Your task to perform on an android device: check google app version Image 0: 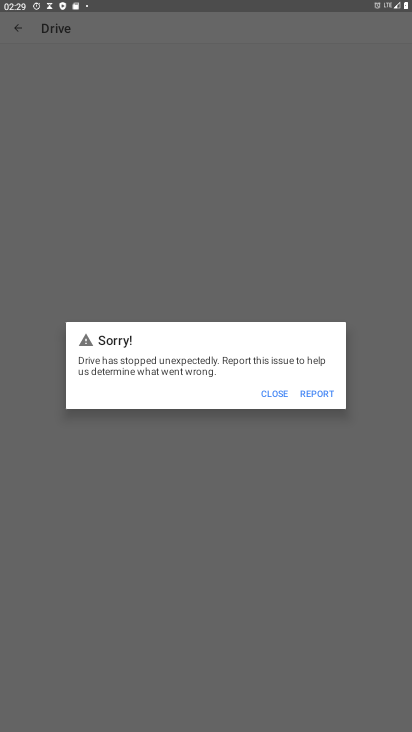
Step 0: press home button
Your task to perform on an android device: check google app version Image 1: 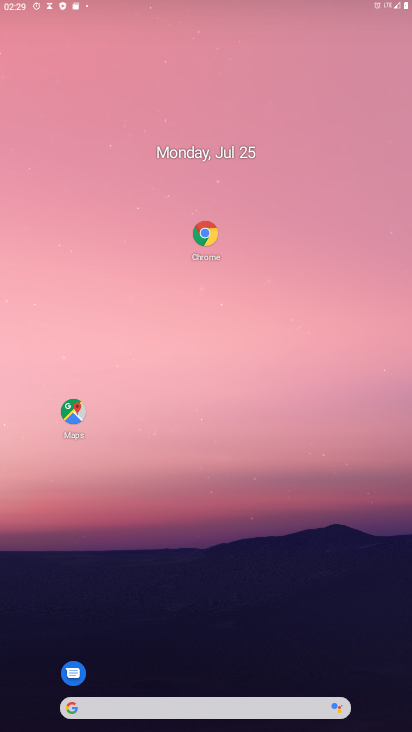
Step 1: drag from (281, 326) to (336, 1)
Your task to perform on an android device: check google app version Image 2: 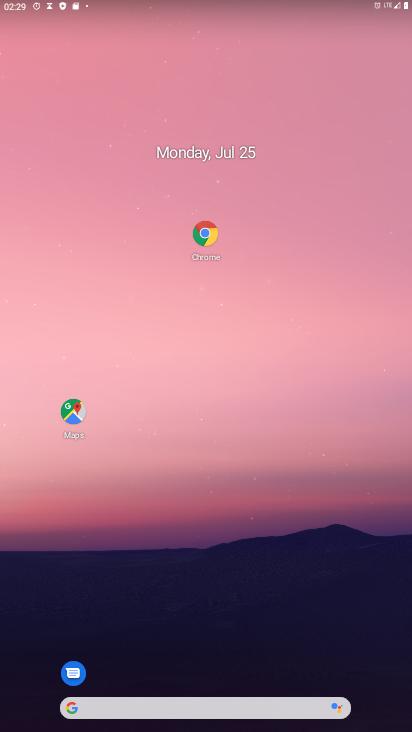
Step 2: drag from (165, 709) to (240, 16)
Your task to perform on an android device: check google app version Image 3: 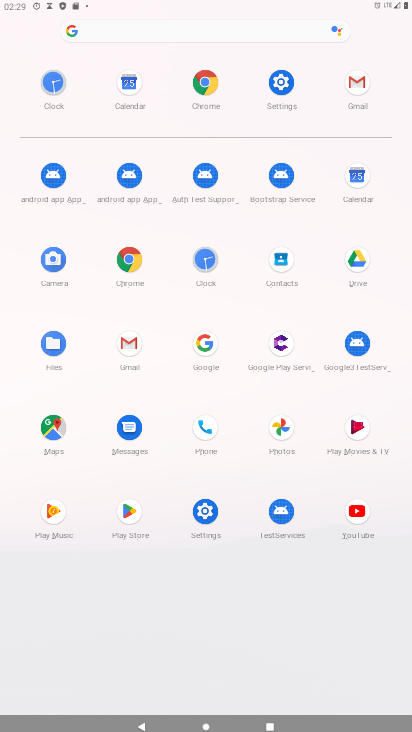
Step 3: click (277, 70)
Your task to perform on an android device: check google app version Image 4: 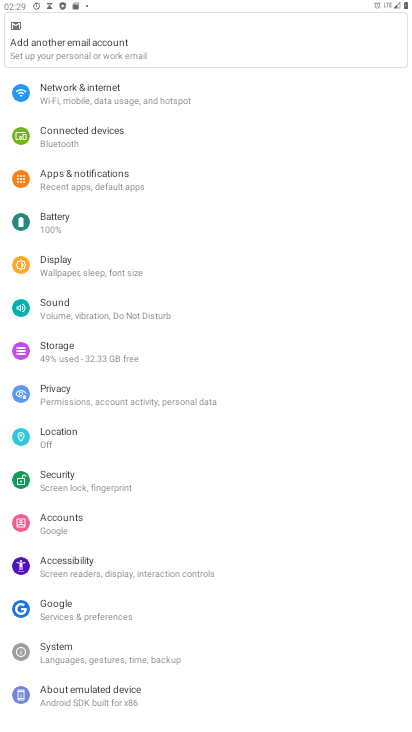
Step 4: press home button
Your task to perform on an android device: check google app version Image 5: 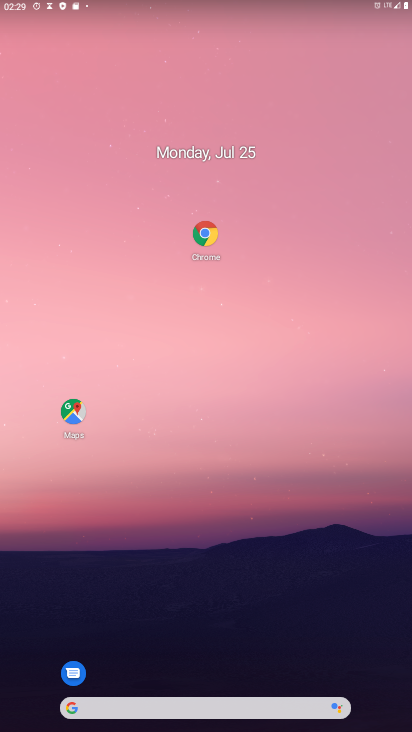
Step 5: drag from (257, 702) to (240, 59)
Your task to perform on an android device: check google app version Image 6: 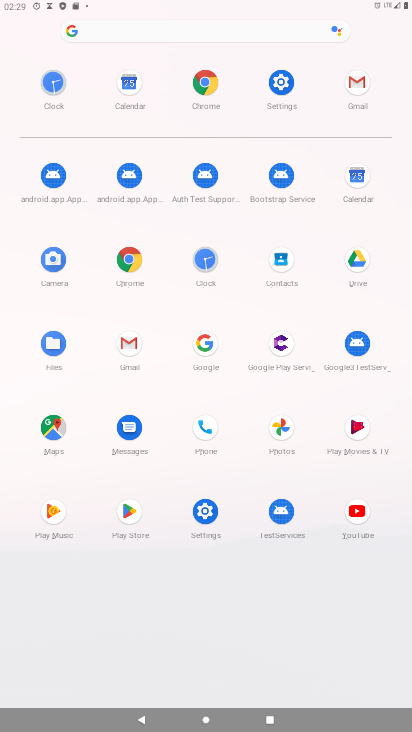
Step 6: click (138, 252)
Your task to perform on an android device: check google app version Image 7: 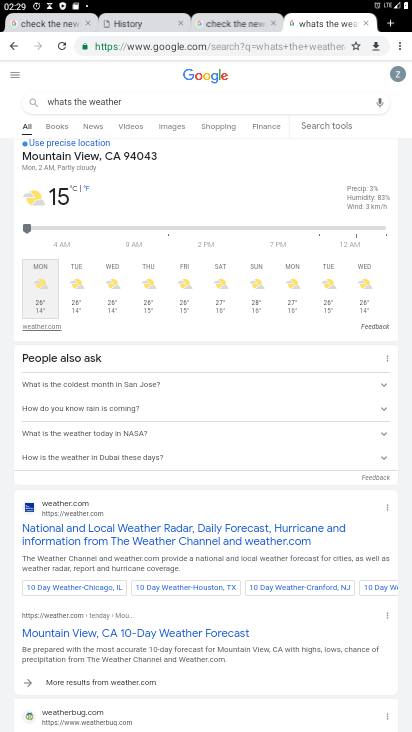
Step 7: drag from (397, 43) to (345, 309)
Your task to perform on an android device: check google app version Image 8: 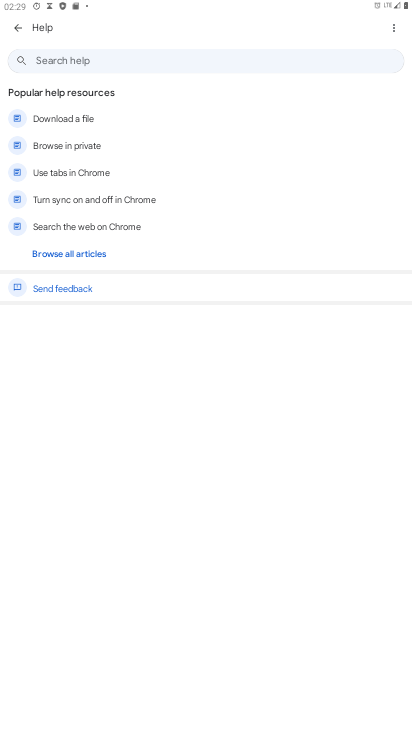
Step 8: click (392, 26)
Your task to perform on an android device: check google app version Image 9: 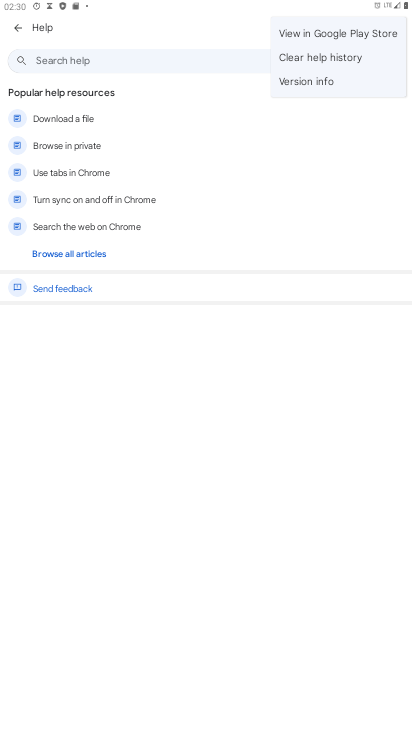
Step 9: click (337, 87)
Your task to perform on an android device: check google app version Image 10: 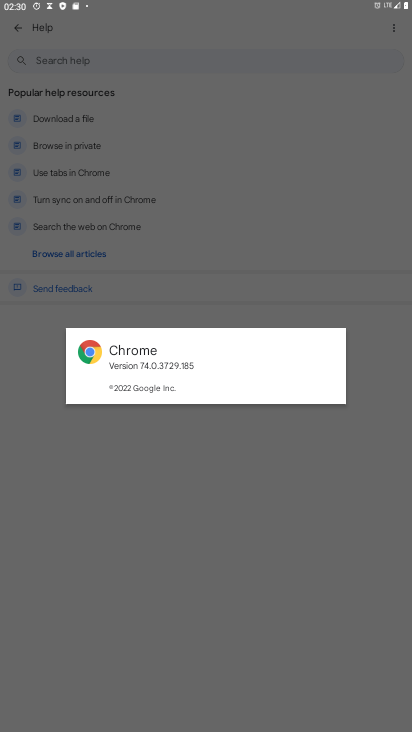
Step 10: task complete